Your task to perform on an android device: Open Google Image 0: 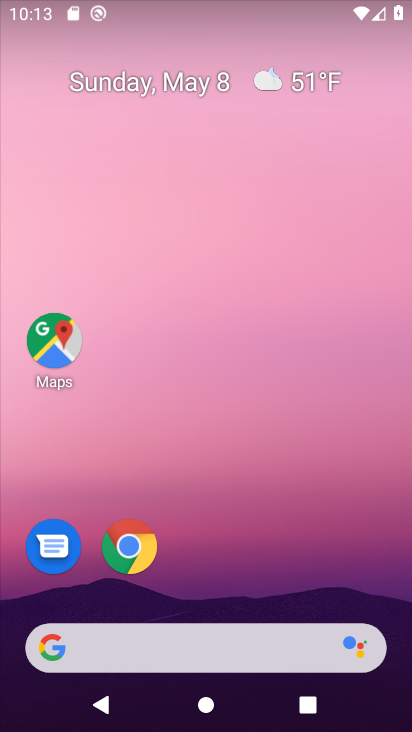
Step 0: click (129, 546)
Your task to perform on an android device: Open Google Image 1: 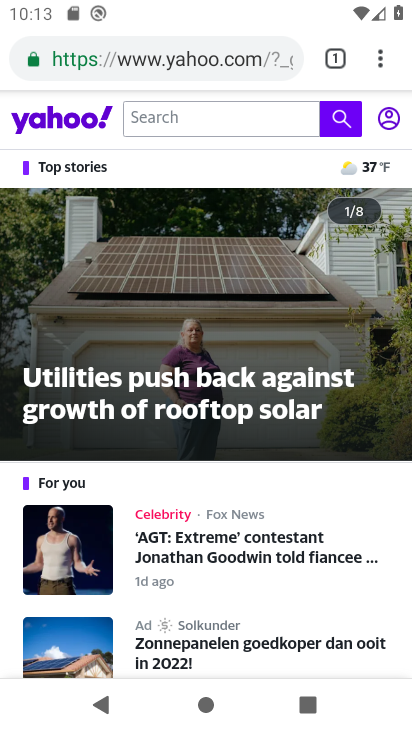
Step 1: task complete